Your task to perform on an android device: turn off picture-in-picture Image 0: 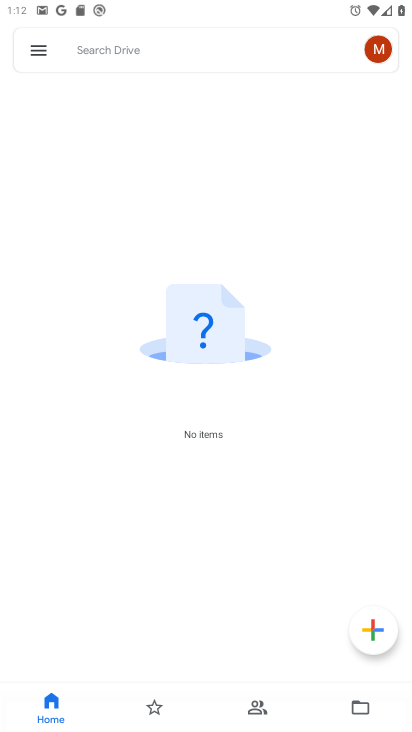
Step 0: press home button
Your task to perform on an android device: turn off picture-in-picture Image 1: 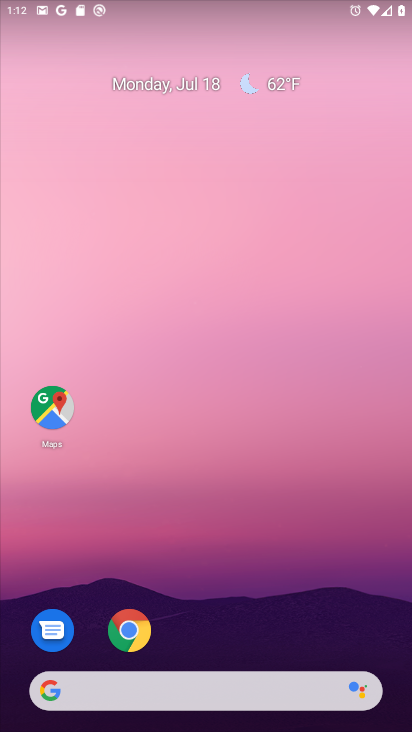
Step 1: click (114, 626)
Your task to perform on an android device: turn off picture-in-picture Image 2: 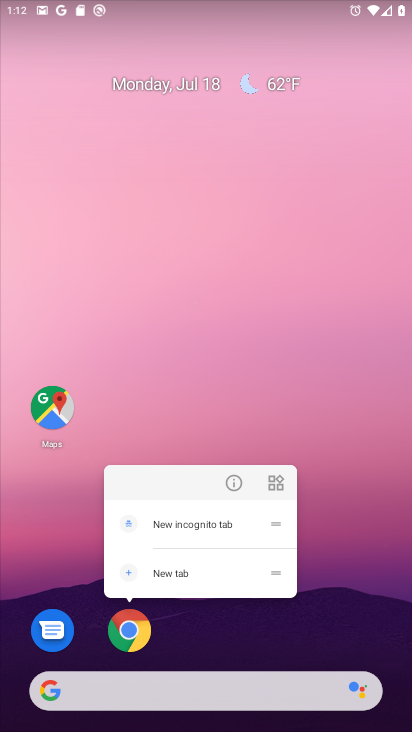
Step 2: click (239, 480)
Your task to perform on an android device: turn off picture-in-picture Image 3: 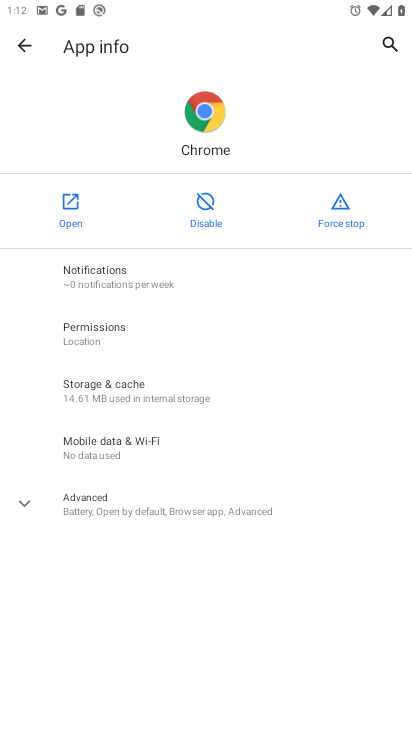
Step 3: click (82, 512)
Your task to perform on an android device: turn off picture-in-picture Image 4: 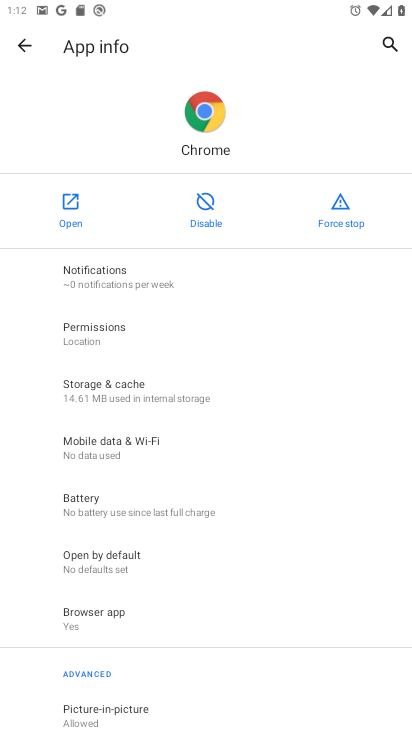
Step 4: click (112, 709)
Your task to perform on an android device: turn off picture-in-picture Image 5: 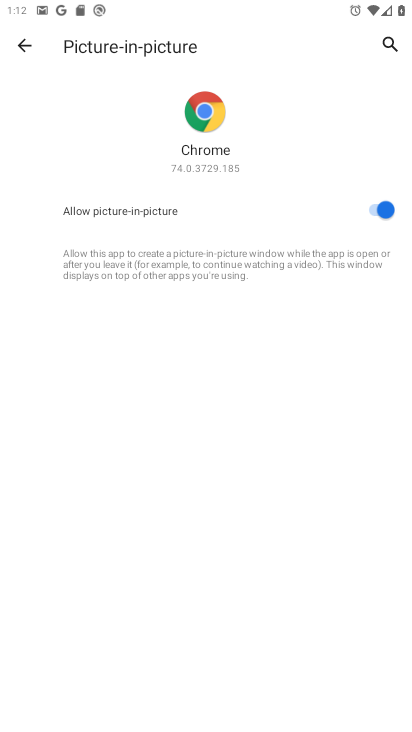
Step 5: click (373, 209)
Your task to perform on an android device: turn off picture-in-picture Image 6: 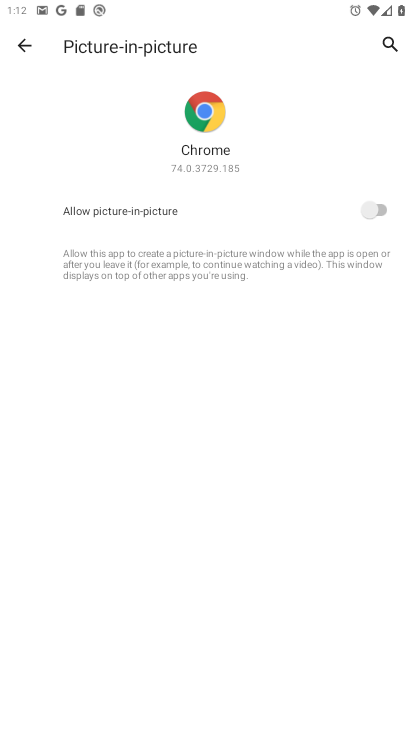
Step 6: task complete